Your task to perform on an android device: Search for cool wooden wall art on Etsy. Image 0: 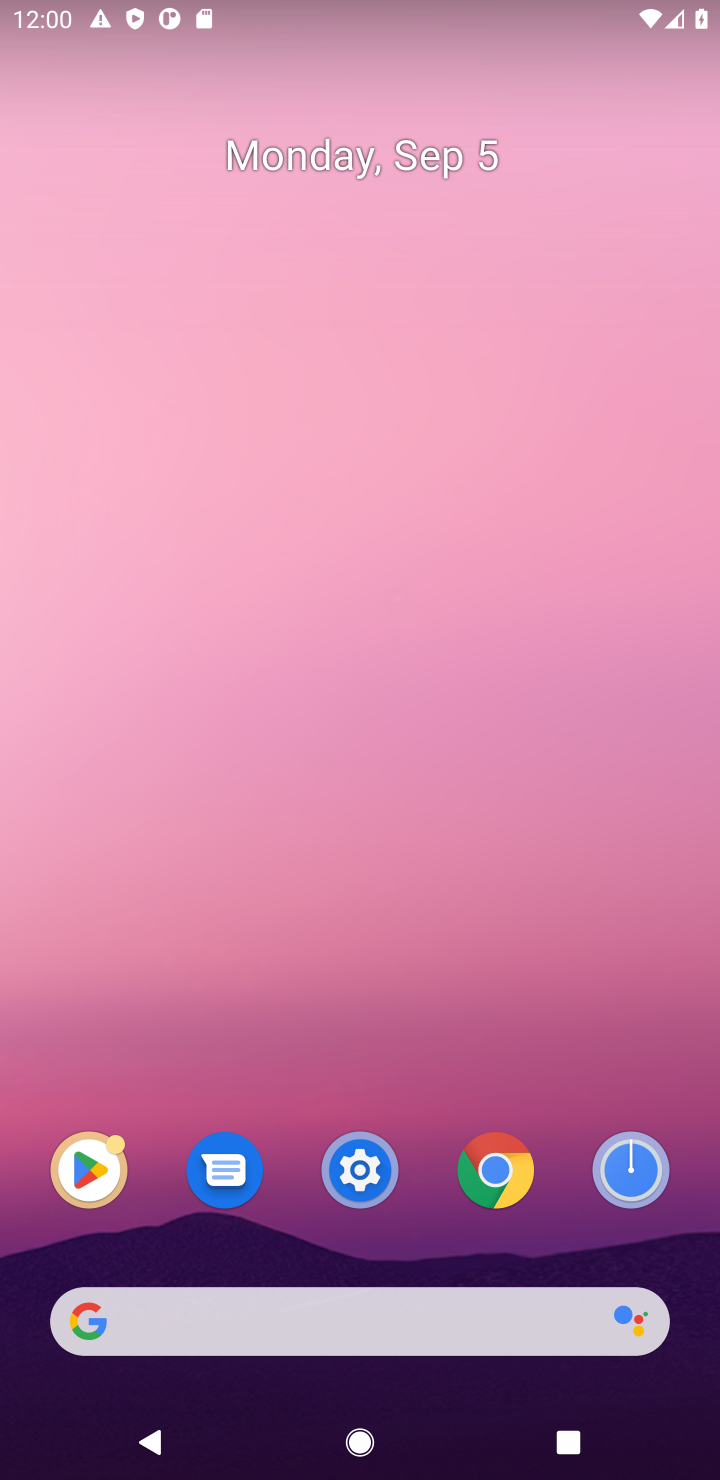
Step 0: click (285, 1335)
Your task to perform on an android device: Search for cool wooden wall art on Etsy. Image 1: 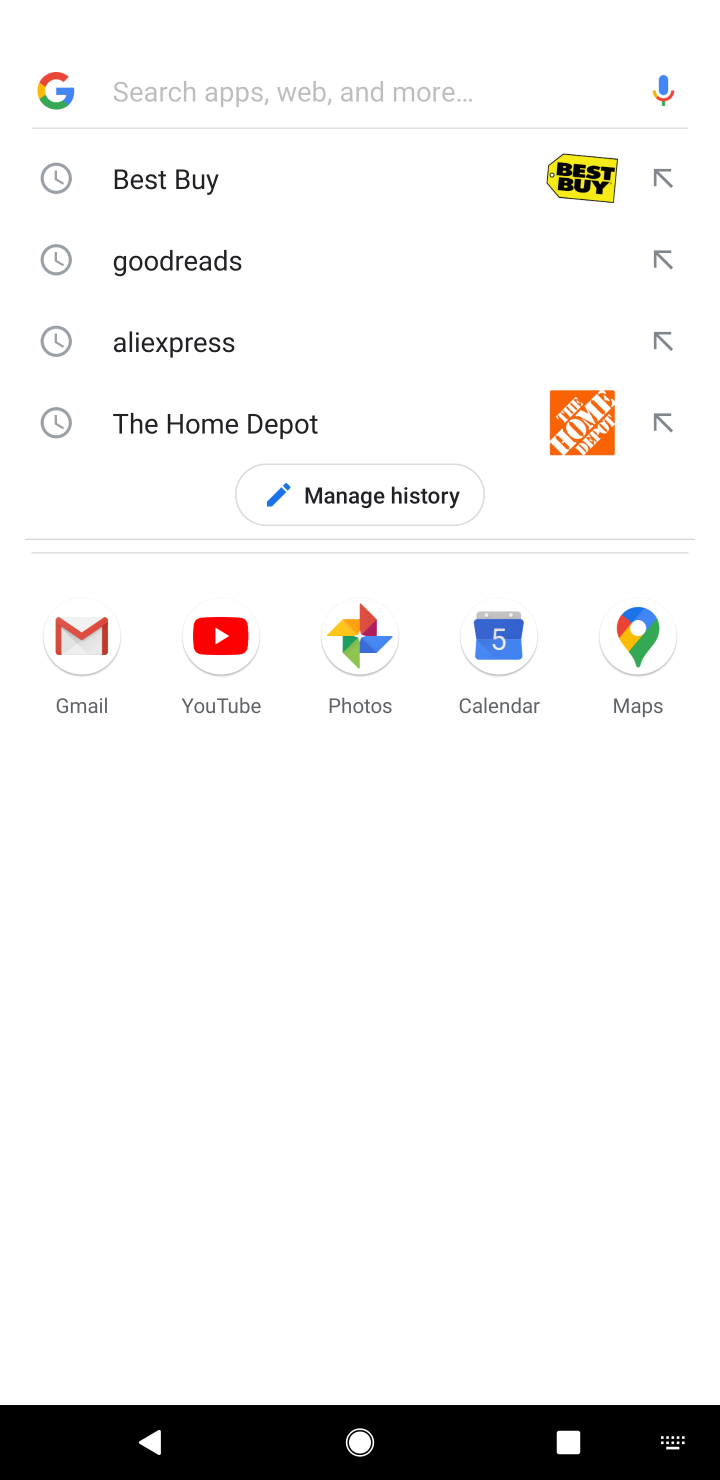
Step 1: type "Etsy."
Your task to perform on an android device: Search for cool wooden wall art on Etsy. Image 2: 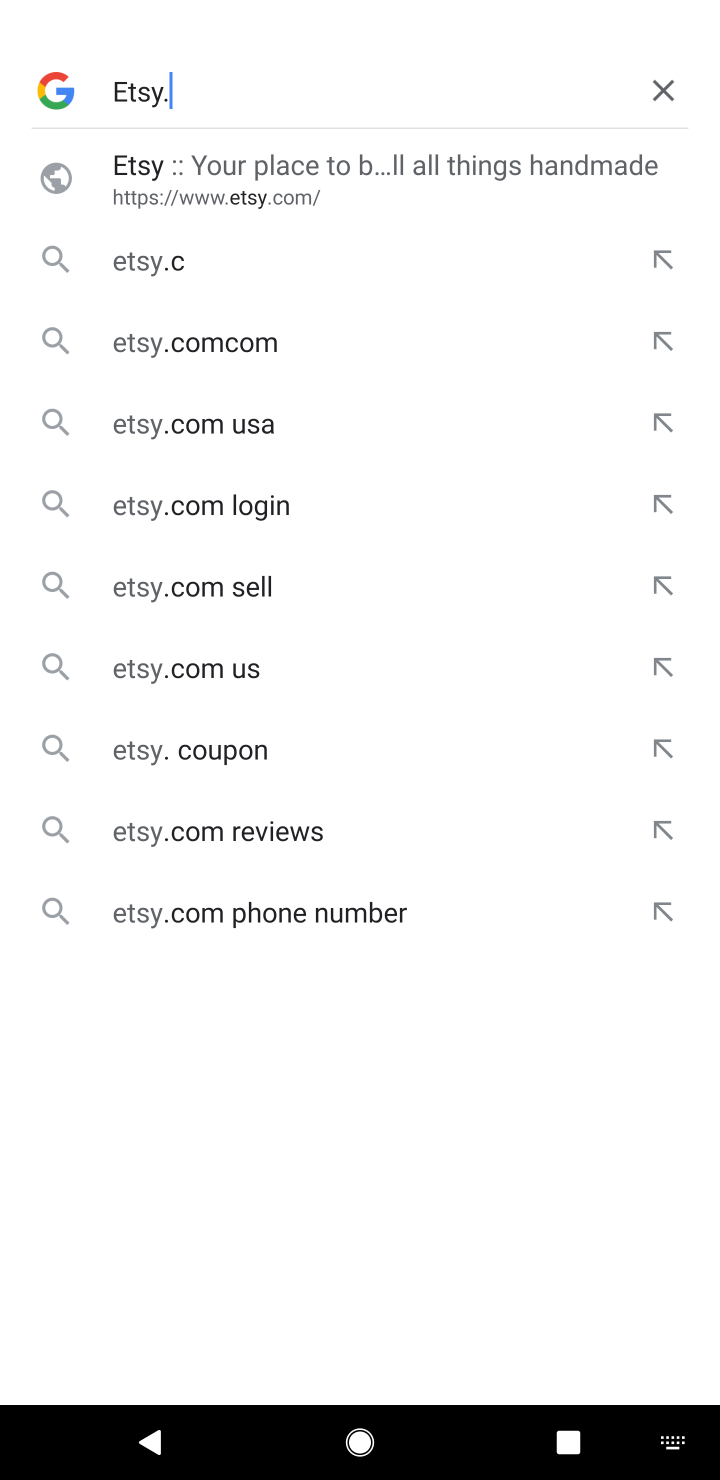
Step 2: click (323, 202)
Your task to perform on an android device: Search for cool wooden wall art on Etsy. Image 3: 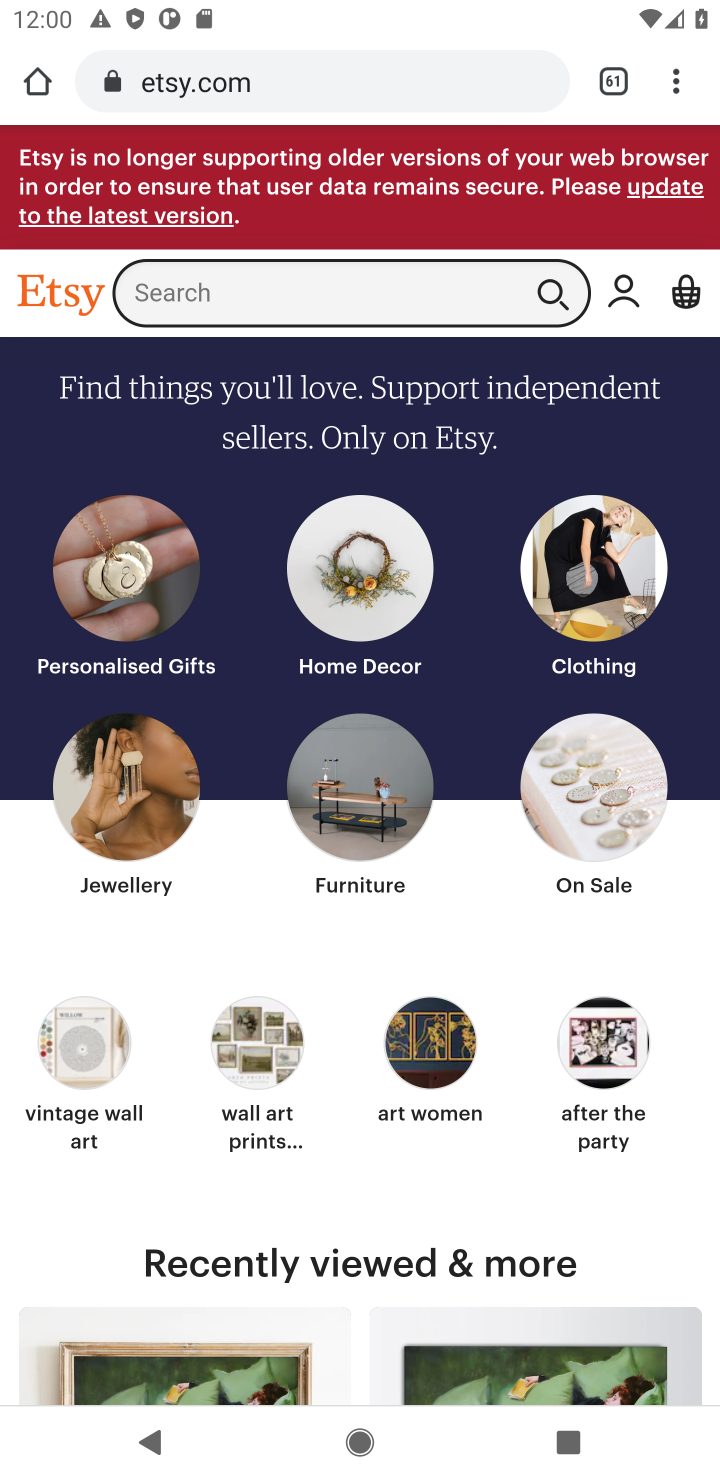
Step 3: click (271, 287)
Your task to perform on an android device: Search for cool wooden wall art on Etsy. Image 4: 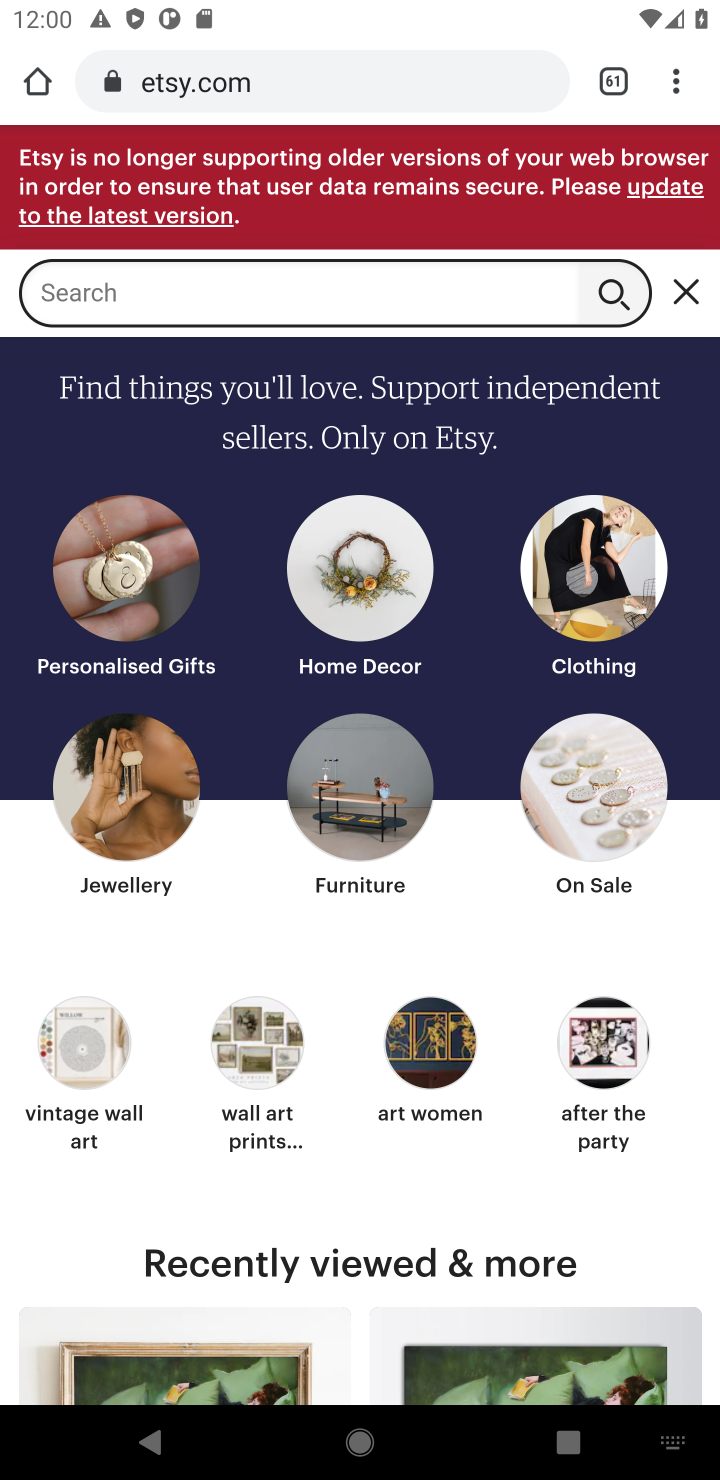
Step 4: type "cool wooden wall"
Your task to perform on an android device: Search for cool wooden wall art on Etsy. Image 5: 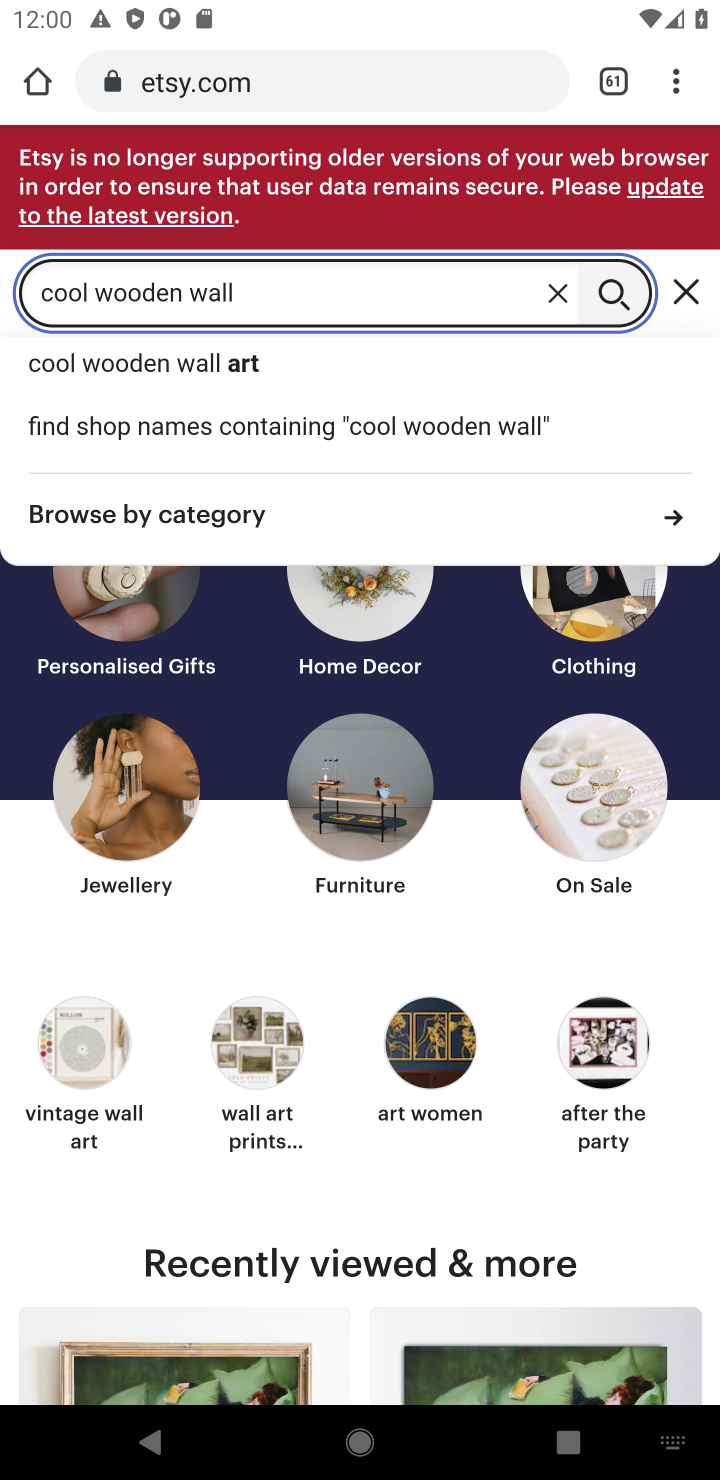
Step 5: click (194, 365)
Your task to perform on an android device: Search for cool wooden wall art on Etsy. Image 6: 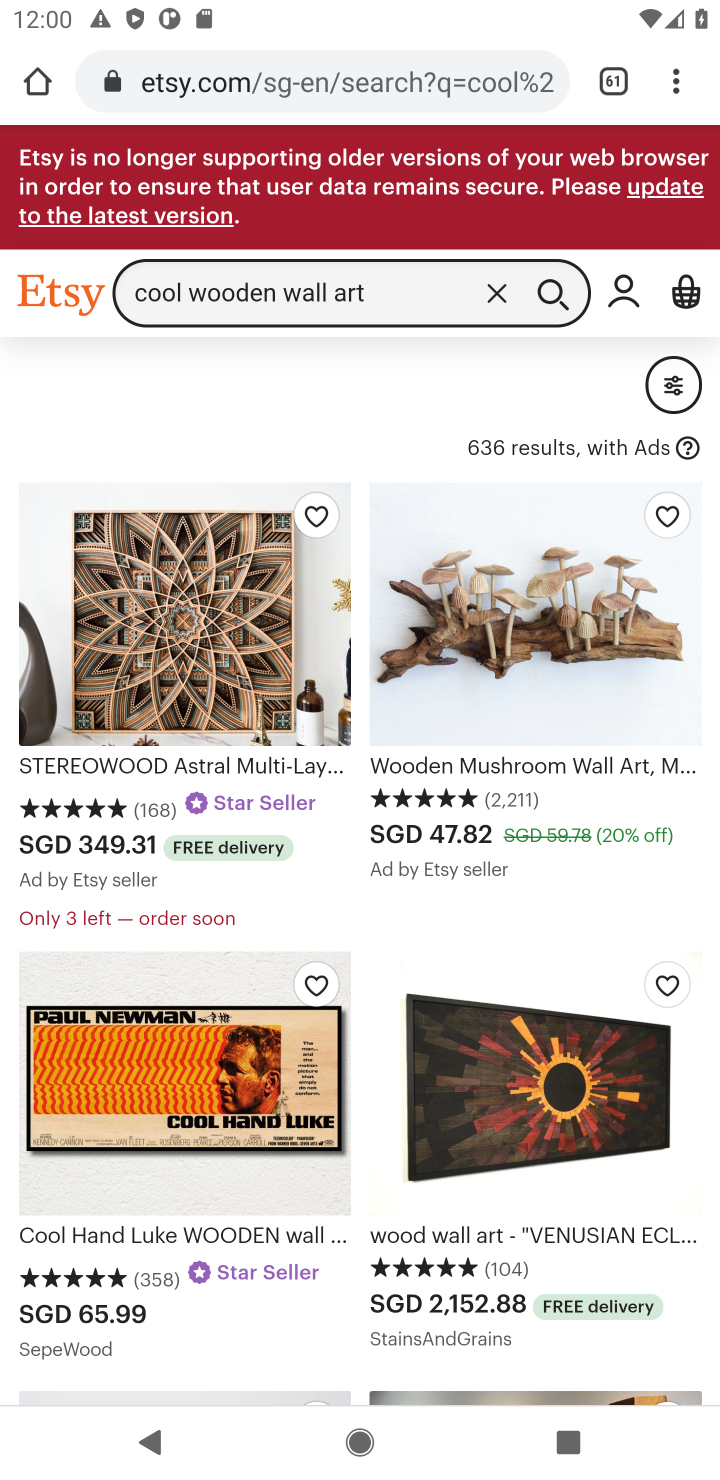
Step 6: task complete